Your task to perform on an android device: Search for the best books on Goodreads. Image 0: 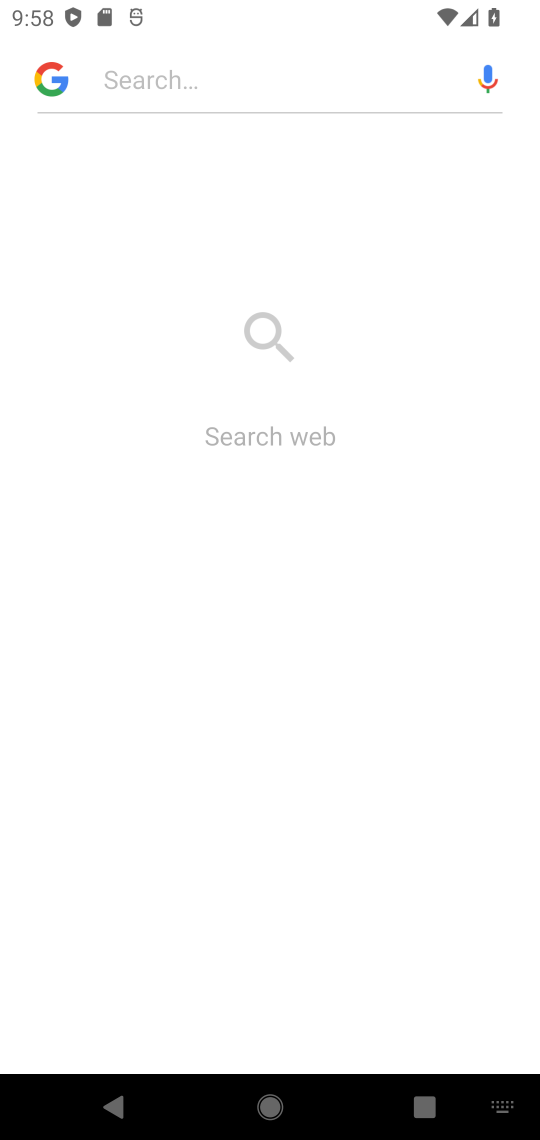
Step 0: press home button
Your task to perform on an android device: Search for the best books on Goodreads. Image 1: 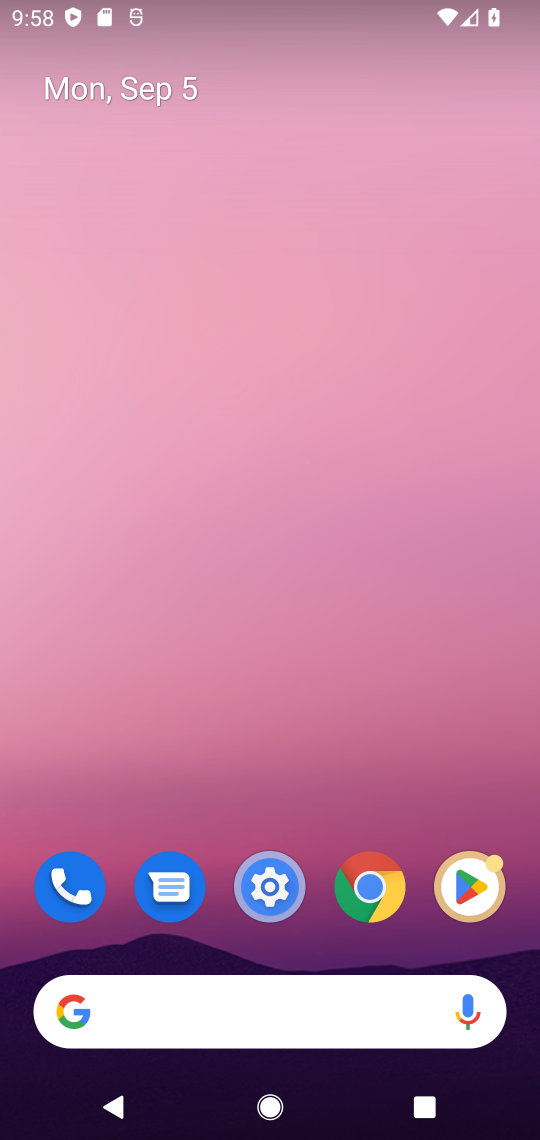
Step 1: click (379, 887)
Your task to perform on an android device: Search for the best books on Goodreads. Image 2: 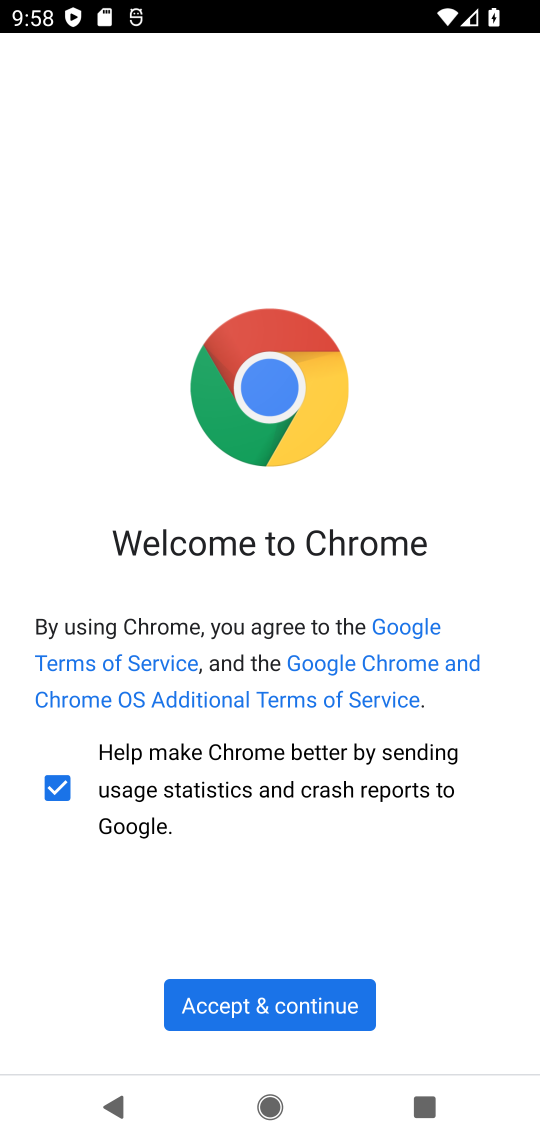
Step 2: click (319, 1025)
Your task to perform on an android device: Search for the best books on Goodreads. Image 3: 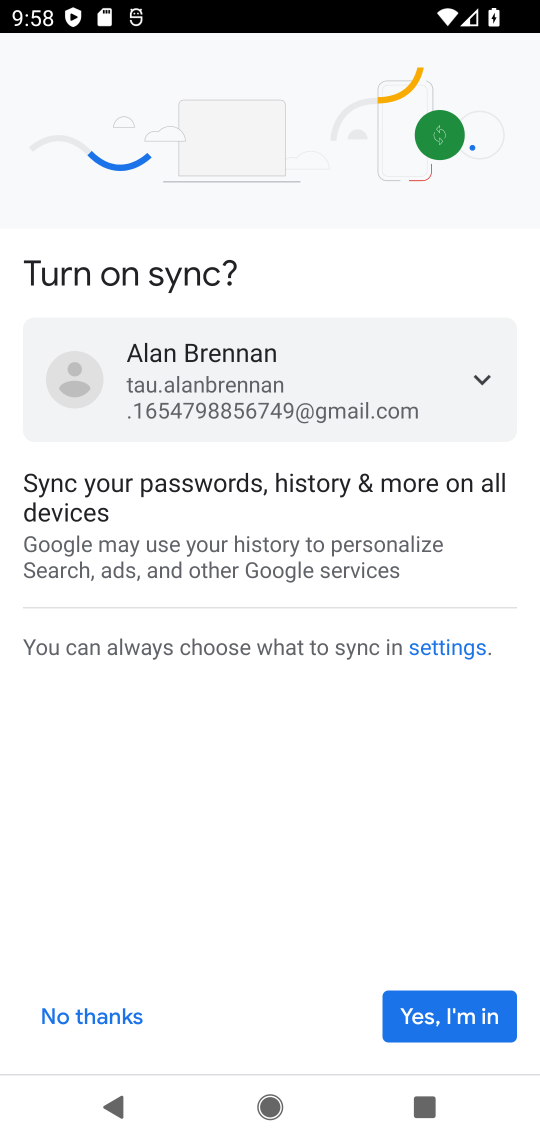
Step 3: click (431, 1019)
Your task to perform on an android device: Search for the best books on Goodreads. Image 4: 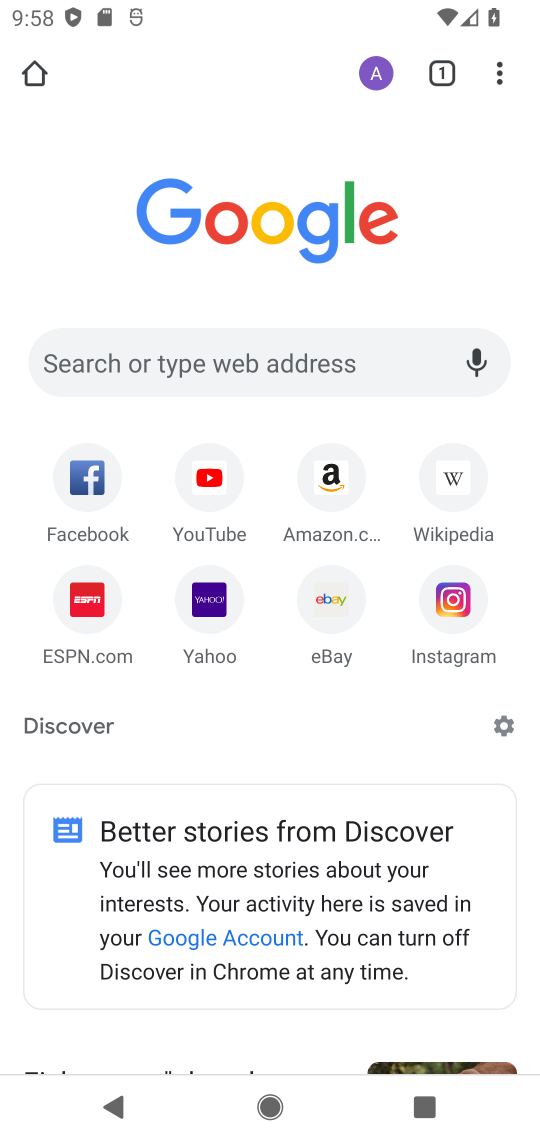
Step 4: click (209, 338)
Your task to perform on an android device: Search for the best books on Goodreads. Image 5: 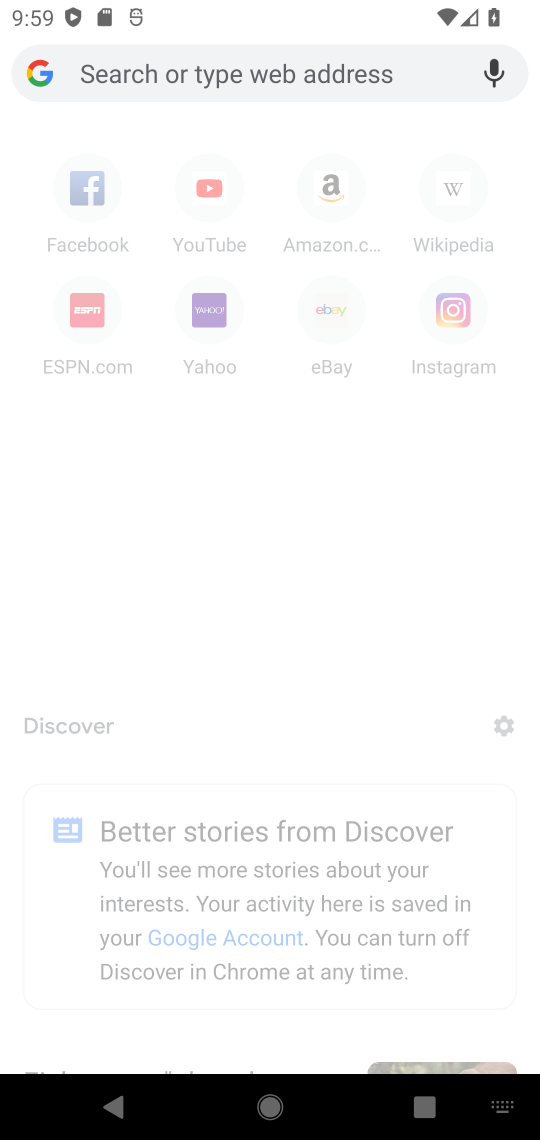
Step 5: type "goodreads"
Your task to perform on an android device: Search for the best books on Goodreads. Image 6: 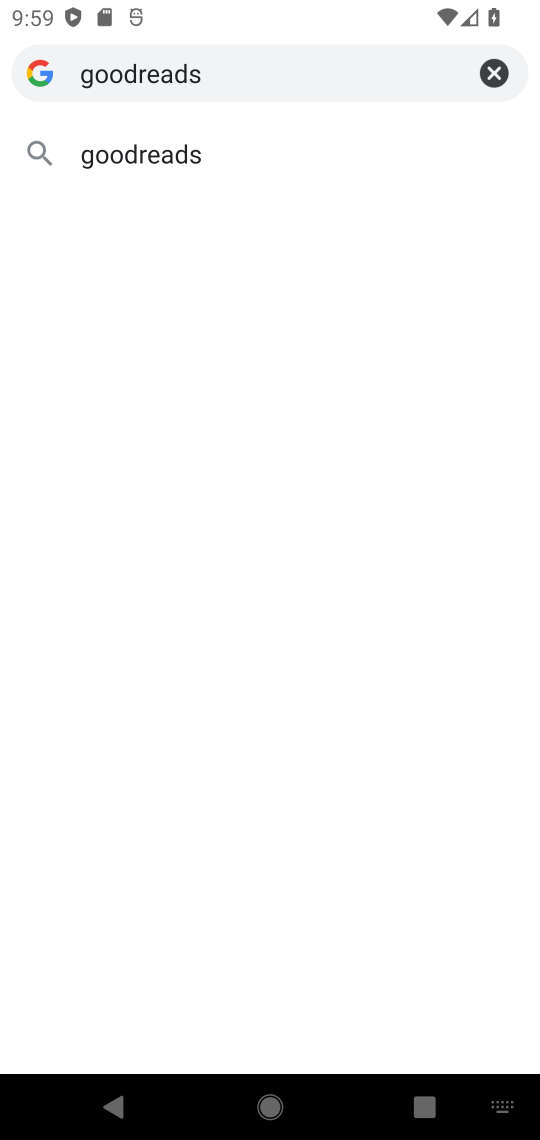
Step 6: click (179, 150)
Your task to perform on an android device: Search for the best books on Goodreads. Image 7: 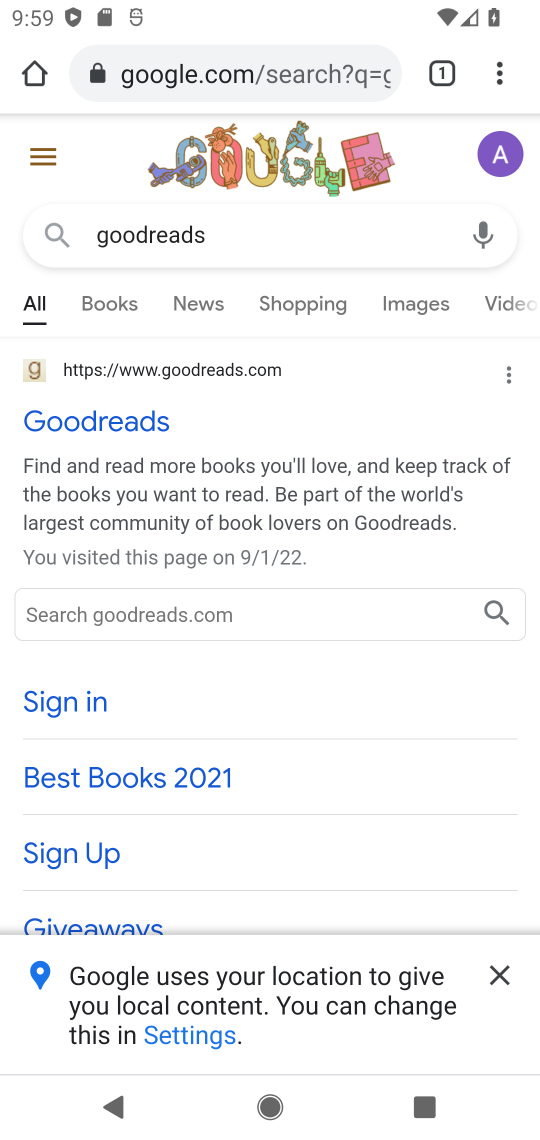
Step 7: click (145, 421)
Your task to perform on an android device: Search for the best books on Goodreads. Image 8: 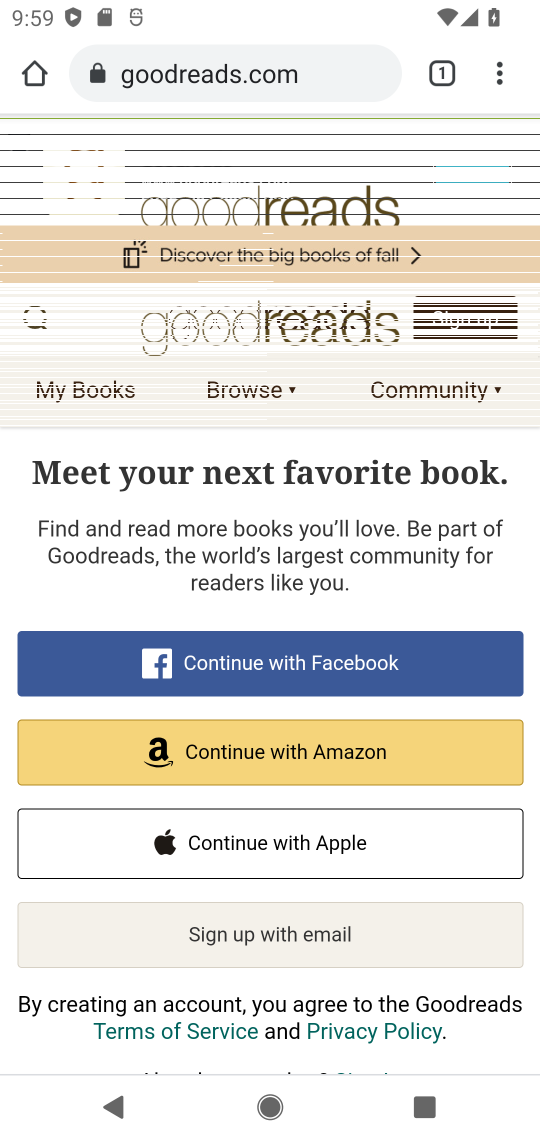
Step 8: click (47, 312)
Your task to perform on an android device: Search for the best books on Goodreads. Image 9: 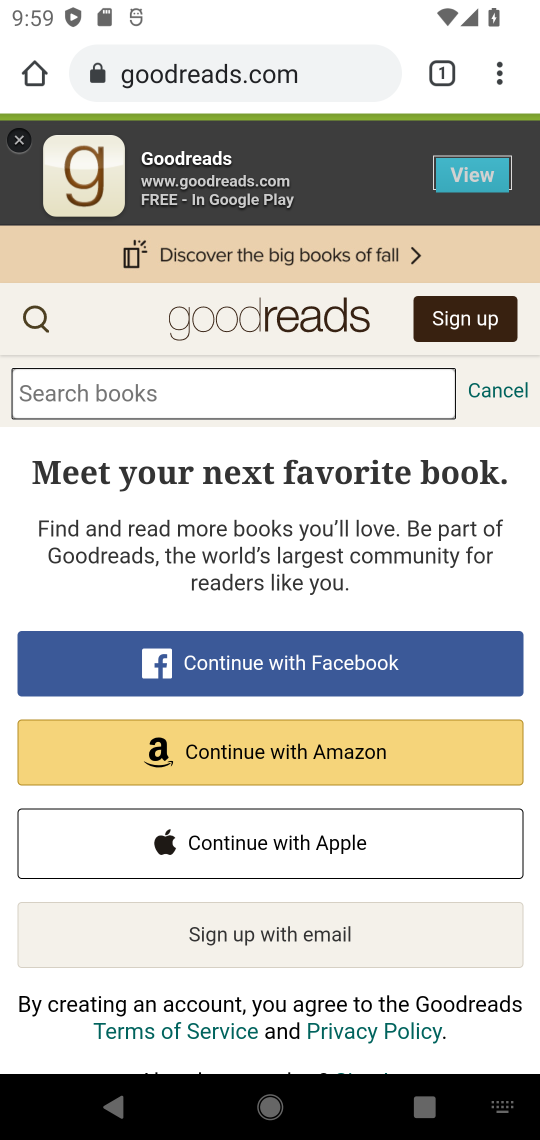
Step 9: type "best books"
Your task to perform on an android device: Search for the best books on Goodreads. Image 10: 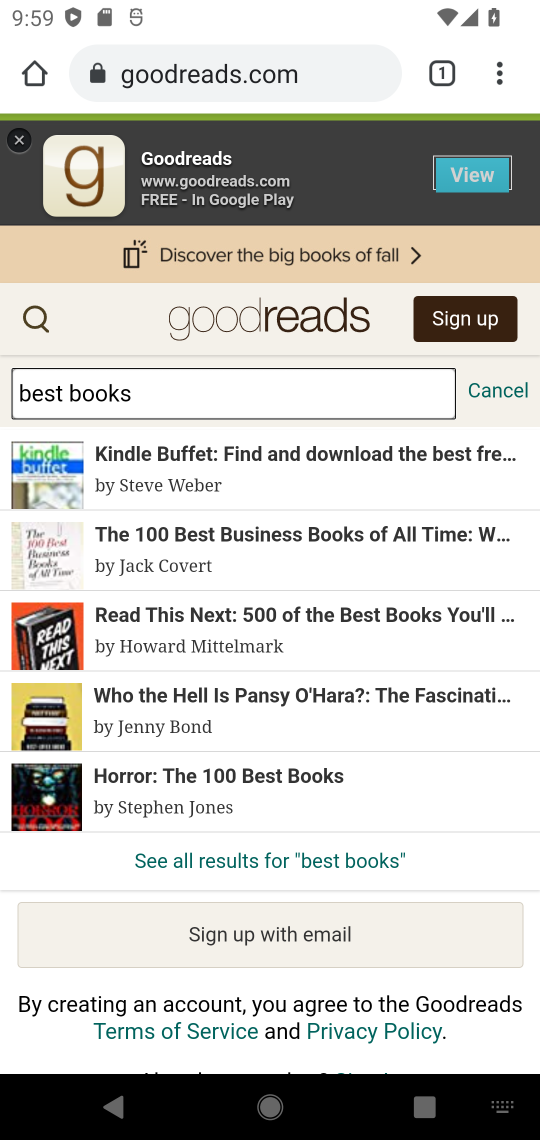
Step 10: task complete